Your task to perform on an android device: Go to accessibility settings Image 0: 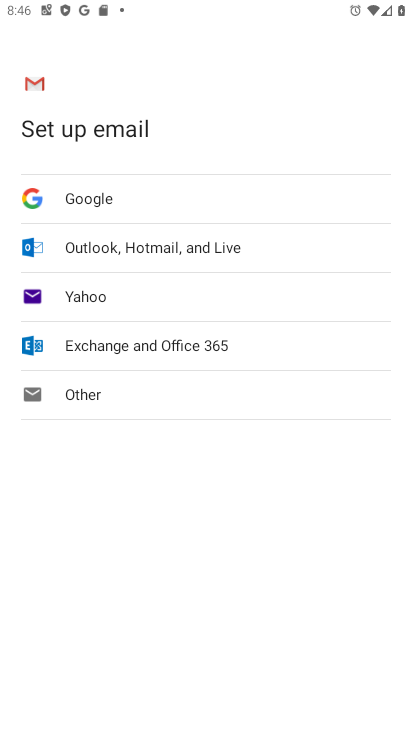
Step 0: press home button
Your task to perform on an android device: Go to accessibility settings Image 1: 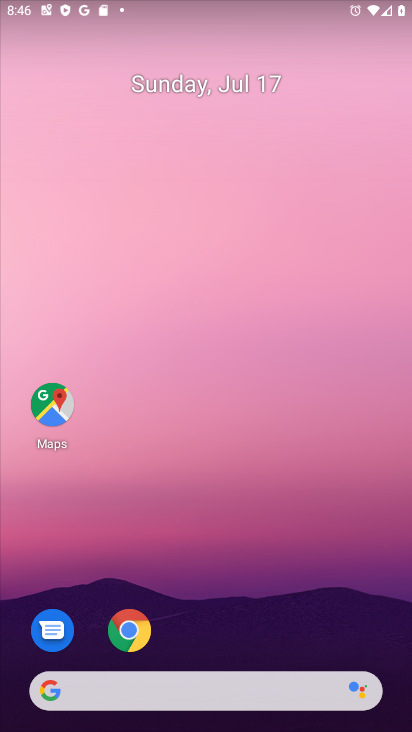
Step 1: drag from (213, 608) to (210, 270)
Your task to perform on an android device: Go to accessibility settings Image 2: 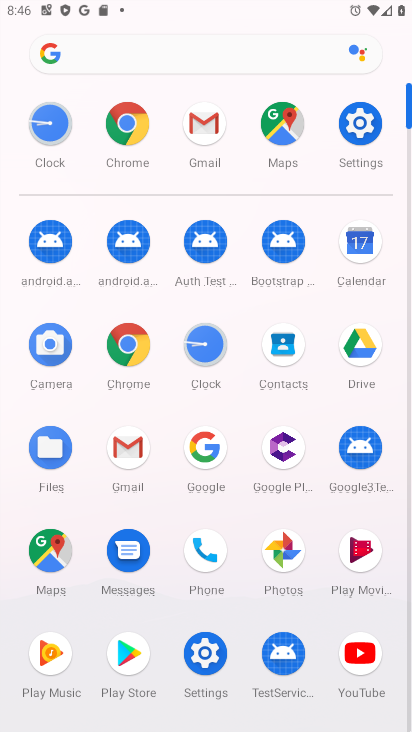
Step 2: click (361, 124)
Your task to perform on an android device: Go to accessibility settings Image 3: 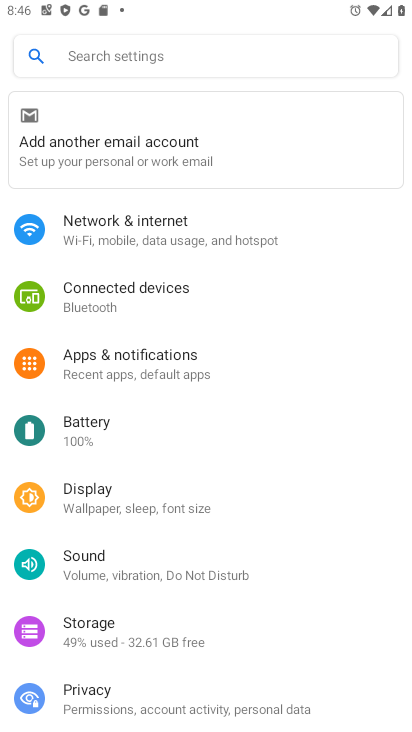
Step 3: drag from (146, 643) to (146, 286)
Your task to perform on an android device: Go to accessibility settings Image 4: 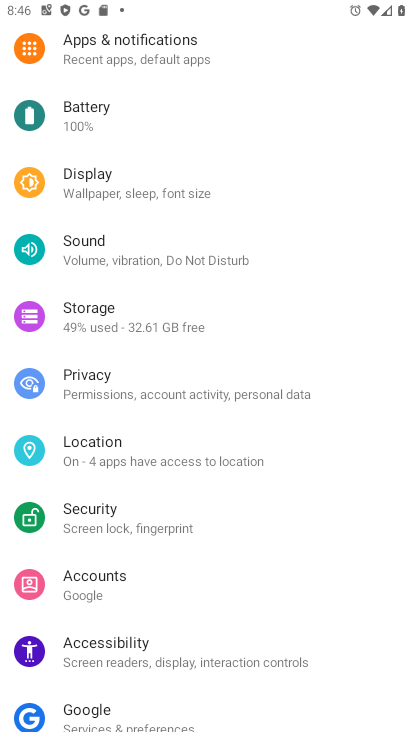
Step 4: click (127, 651)
Your task to perform on an android device: Go to accessibility settings Image 5: 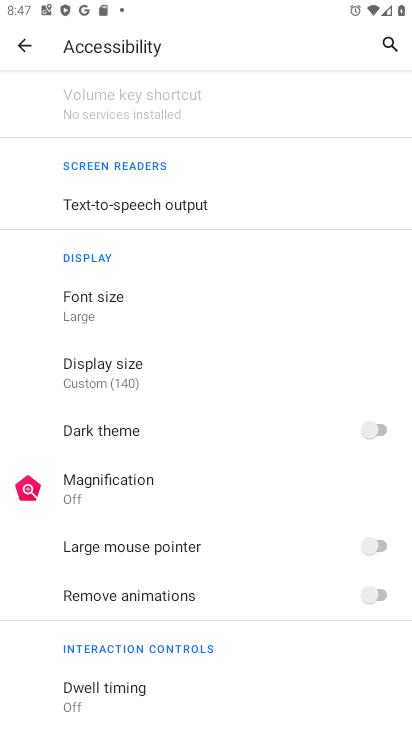
Step 5: task complete